Your task to perform on an android device: add a contact Image 0: 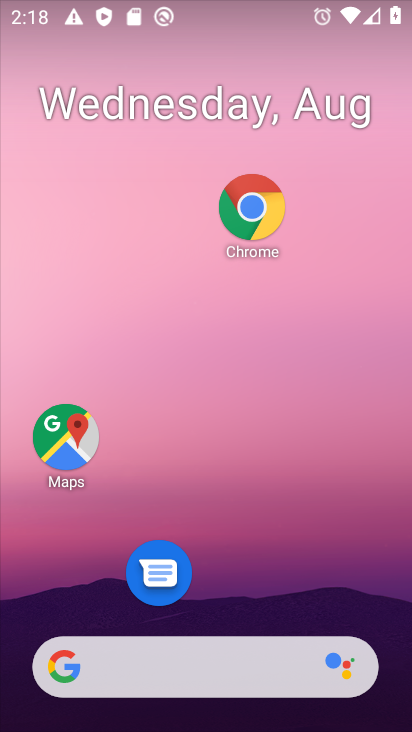
Step 0: drag from (309, 628) to (349, 55)
Your task to perform on an android device: add a contact Image 1: 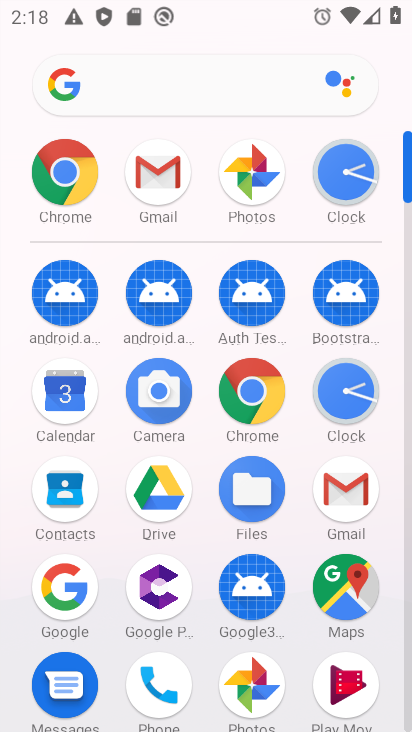
Step 1: drag from (309, 527) to (342, 220)
Your task to perform on an android device: add a contact Image 2: 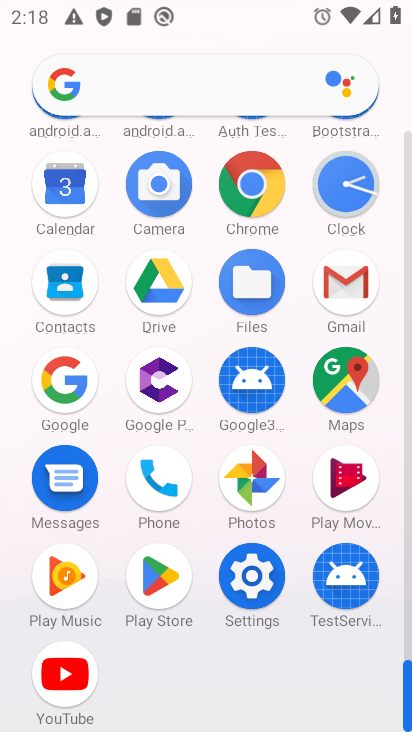
Step 2: click (81, 274)
Your task to perform on an android device: add a contact Image 3: 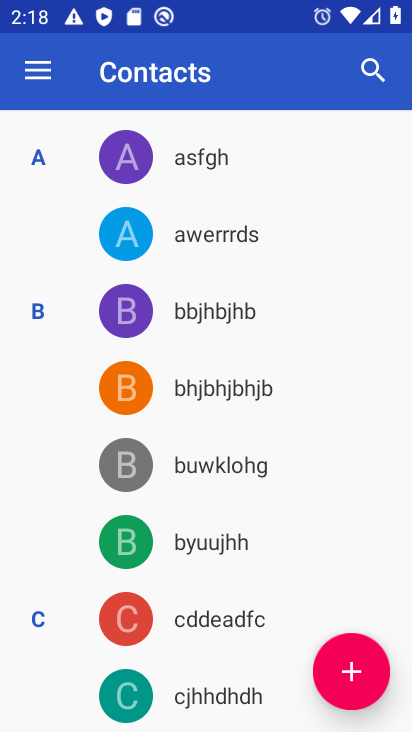
Step 3: click (354, 684)
Your task to perform on an android device: add a contact Image 4: 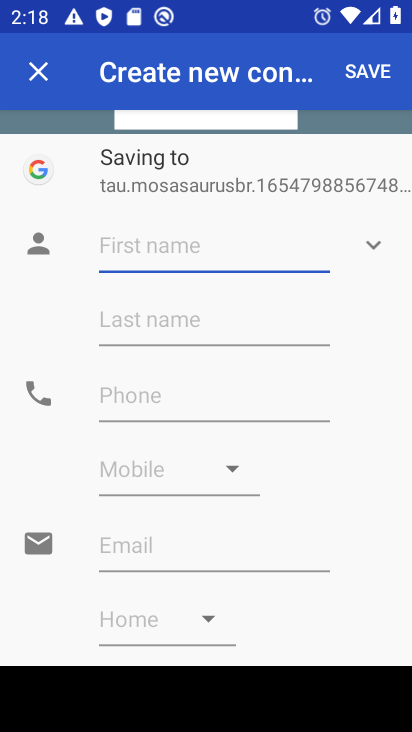
Step 4: type "soniuiuihsis"
Your task to perform on an android device: add a contact Image 5: 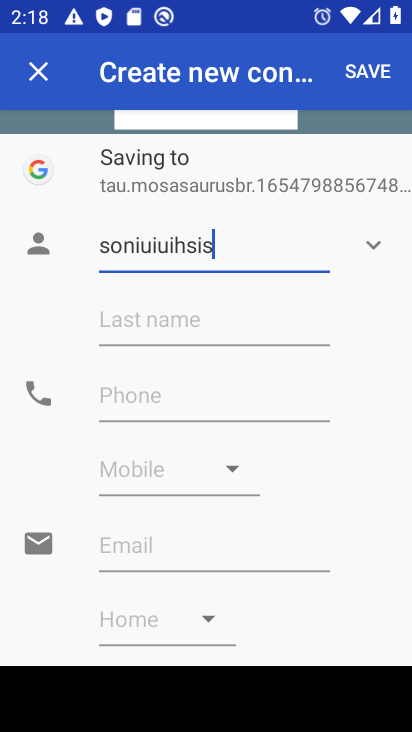
Step 5: click (250, 411)
Your task to perform on an android device: add a contact Image 6: 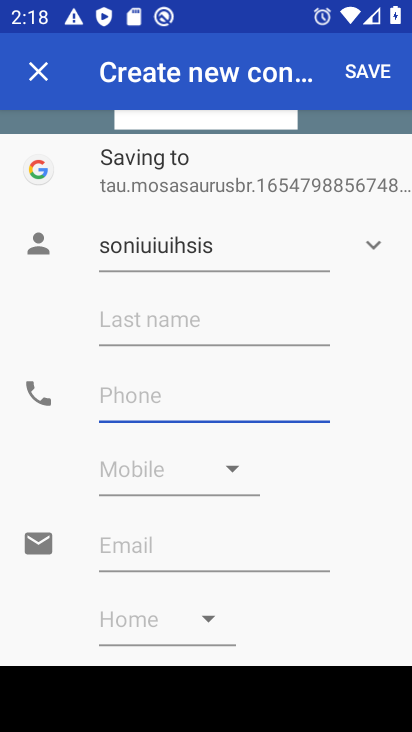
Step 6: type "9877966578"
Your task to perform on an android device: add a contact Image 7: 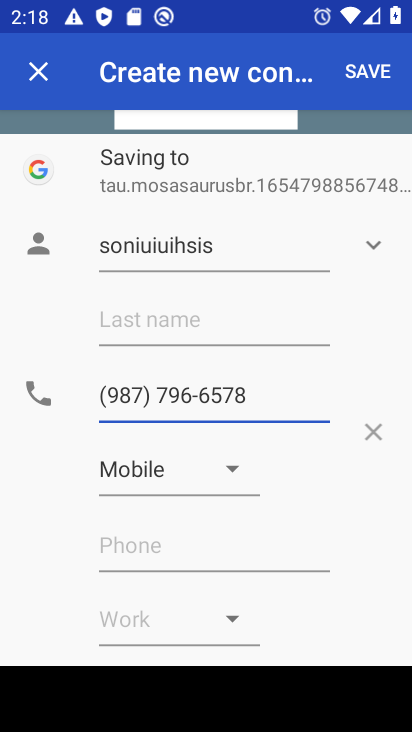
Step 7: click (342, 69)
Your task to perform on an android device: add a contact Image 8: 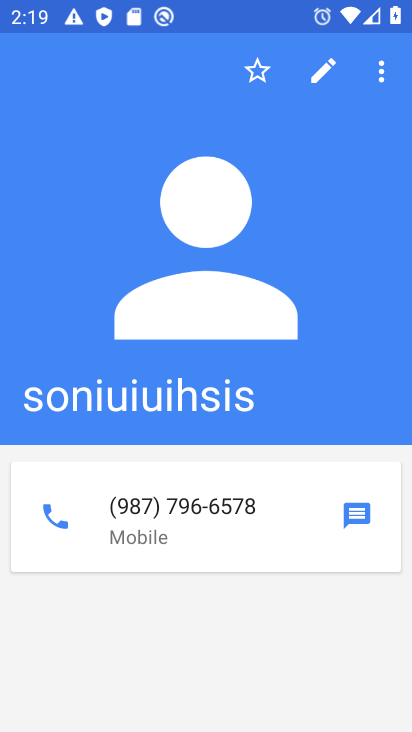
Step 8: task complete